Your task to perform on an android device: toggle translation in the chrome app Image 0: 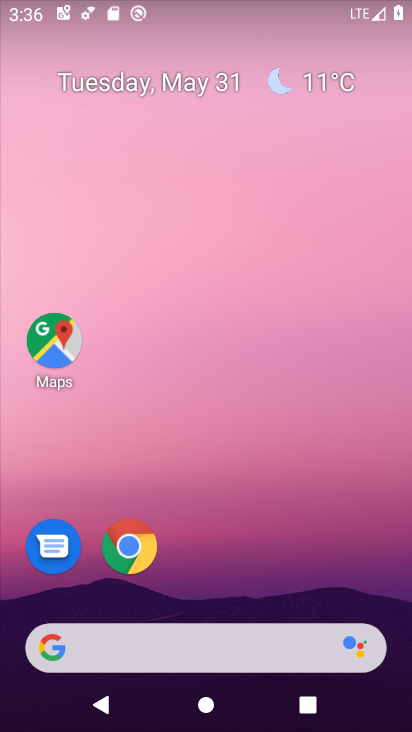
Step 0: drag from (247, 429) to (259, 318)
Your task to perform on an android device: toggle translation in the chrome app Image 1: 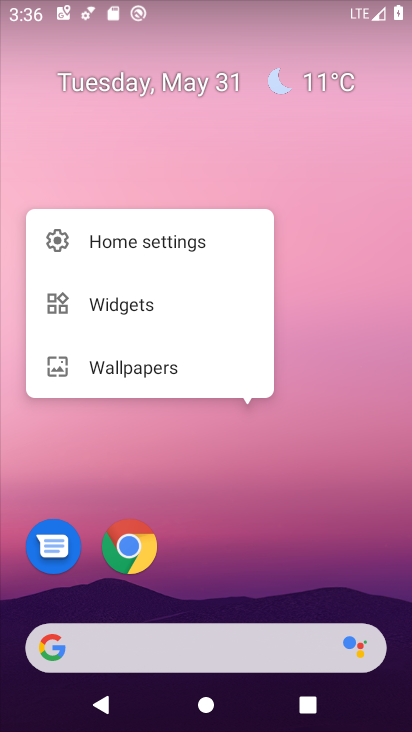
Step 1: click (116, 543)
Your task to perform on an android device: toggle translation in the chrome app Image 2: 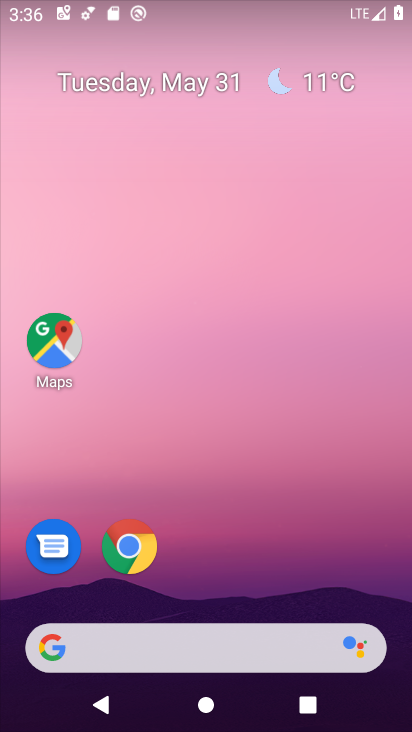
Step 2: click (137, 554)
Your task to perform on an android device: toggle translation in the chrome app Image 3: 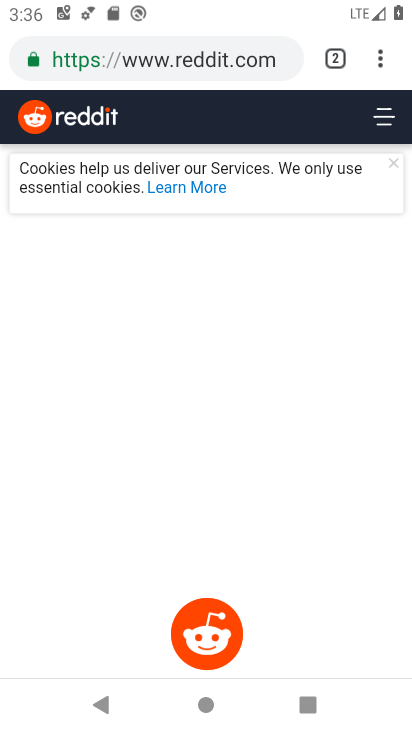
Step 3: click (383, 62)
Your task to perform on an android device: toggle translation in the chrome app Image 4: 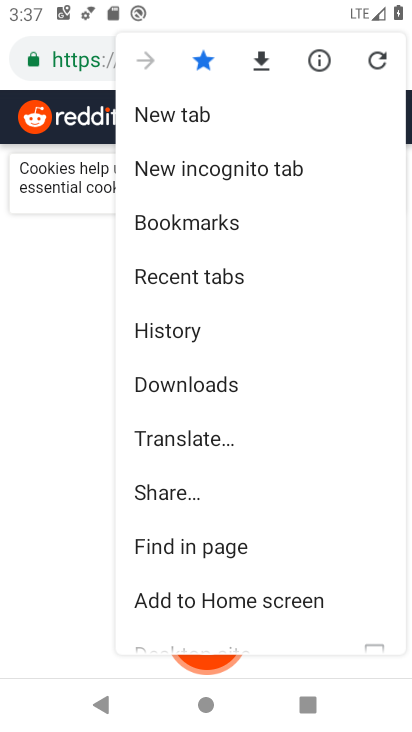
Step 4: drag from (240, 548) to (203, 185)
Your task to perform on an android device: toggle translation in the chrome app Image 5: 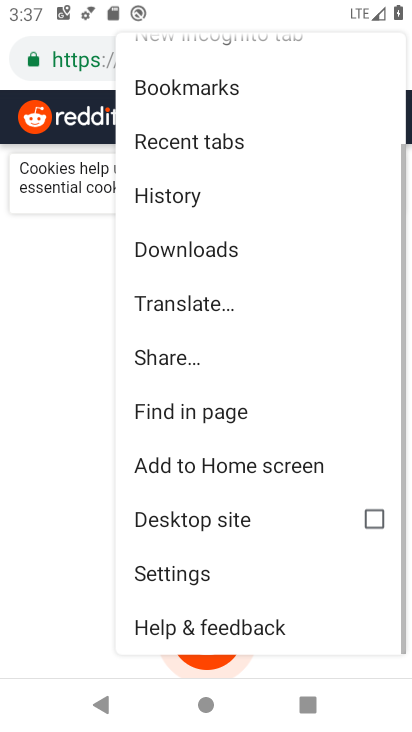
Step 5: click (197, 558)
Your task to perform on an android device: toggle translation in the chrome app Image 6: 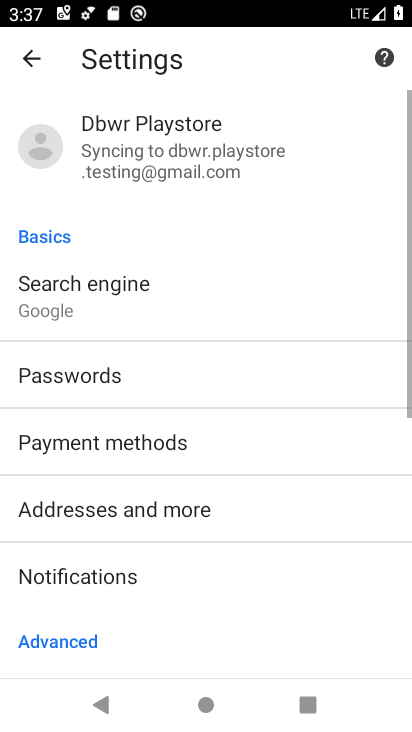
Step 6: drag from (217, 585) to (236, 96)
Your task to perform on an android device: toggle translation in the chrome app Image 7: 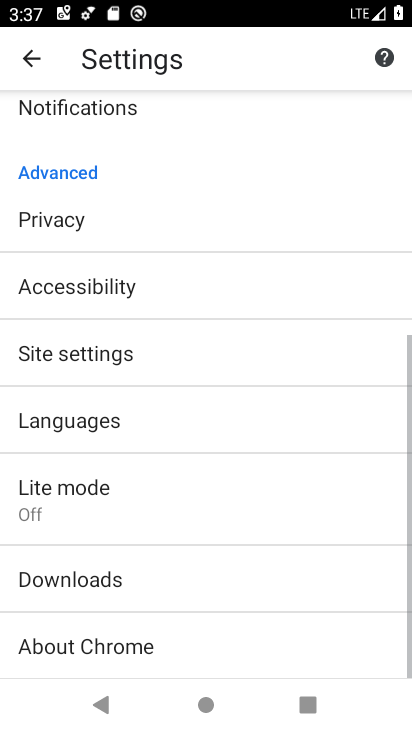
Step 7: click (113, 428)
Your task to perform on an android device: toggle translation in the chrome app Image 8: 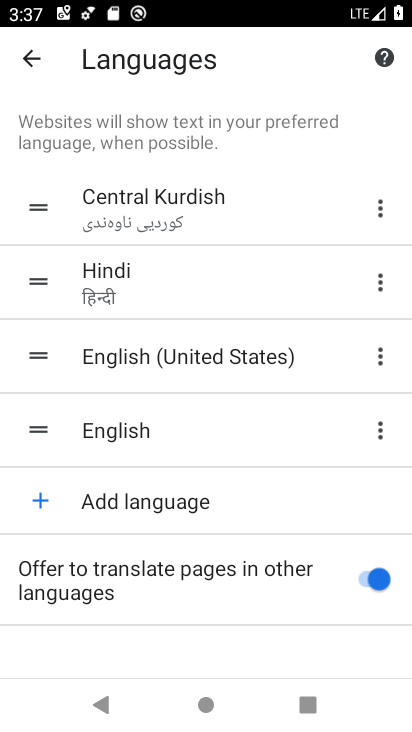
Step 8: click (372, 570)
Your task to perform on an android device: toggle translation in the chrome app Image 9: 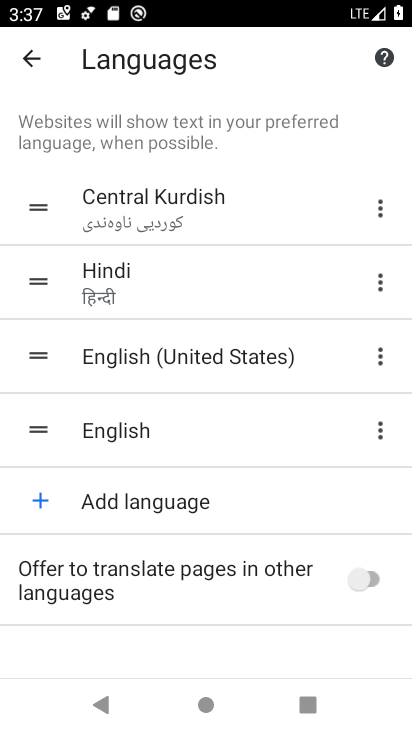
Step 9: task complete